Your task to perform on an android device: find snoozed emails in the gmail app Image 0: 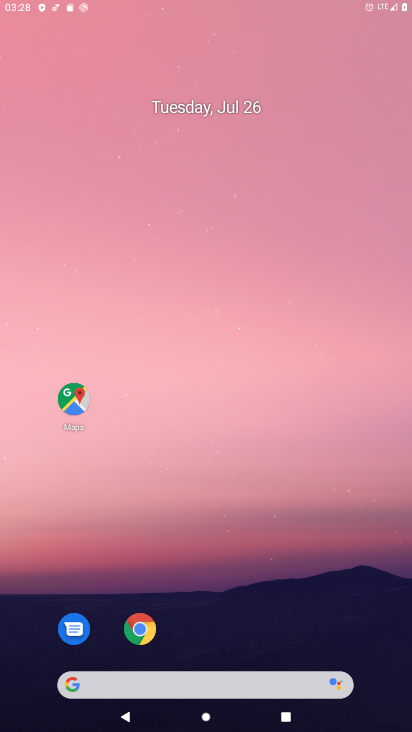
Step 0: drag from (268, 584) to (286, 74)
Your task to perform on an android device: find snoozed emails in the gmail app Image 1: 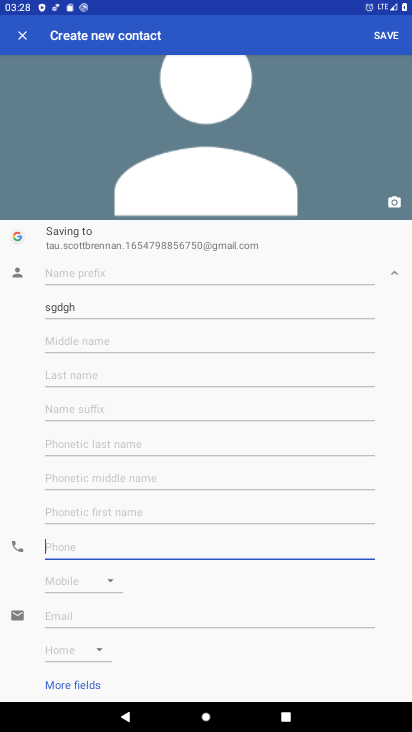
Step 1: press home button
Your task to perform on an android device: find snoozed emails in the gmail app Image 2: 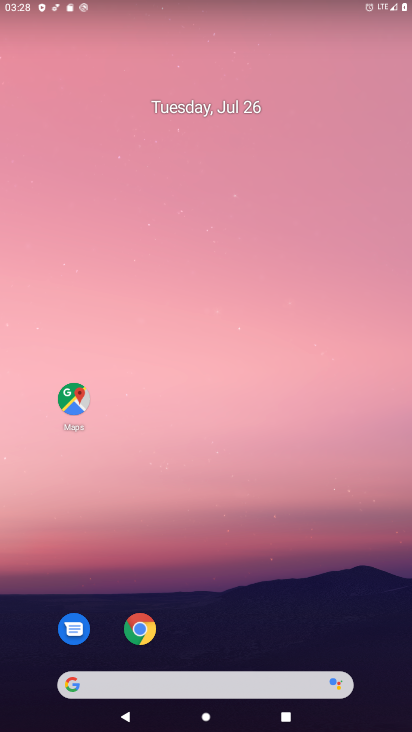
Step 2: drag from (248, 627) to (224, 137)
Your task to perform on an android device: find snoozed emails in the gmail app Image 3: 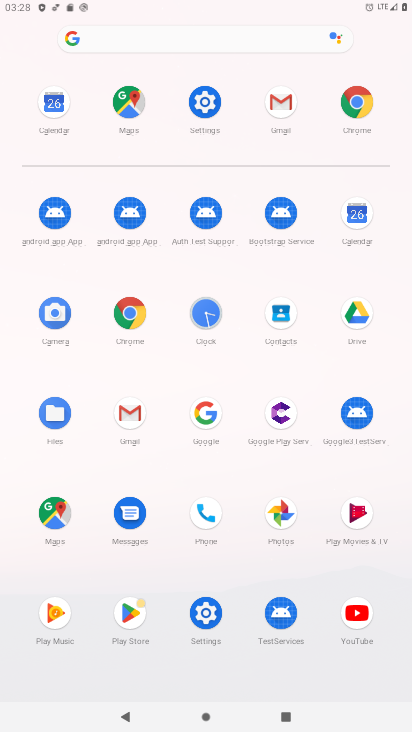
Step 3: click (124, 313)
Your task to perform on an android device: find snoozed emails in the gmail app Image 4: 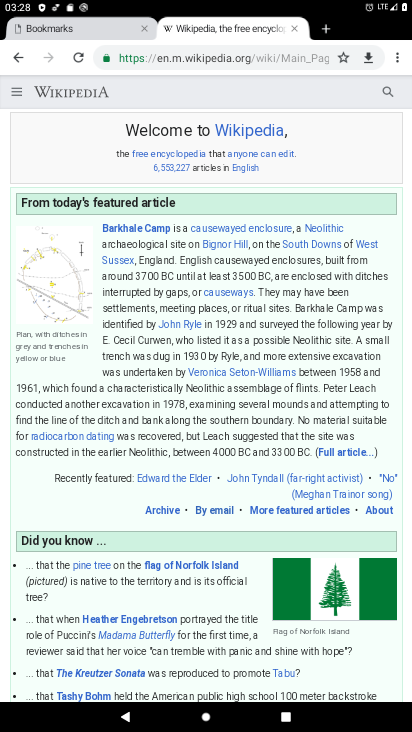
Step 4: press home button
Your task to perform on an android device: find snoozed emails in the gmail app Image 5: 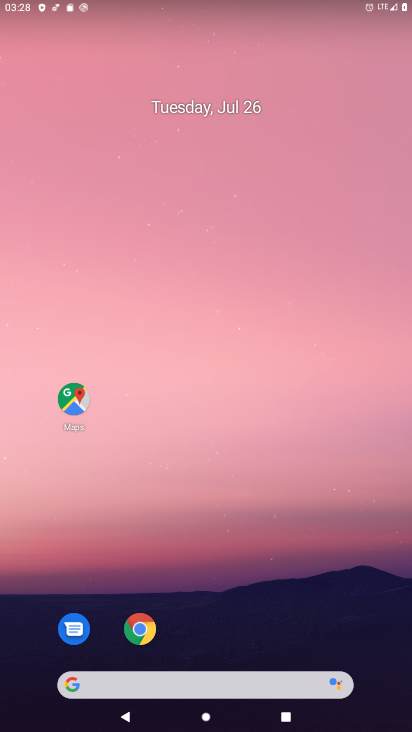
Step 5: drag from (284, 626) to (297, 231)
Your task to perform on an android device: find snoozed emails in the gmail app Image 6: 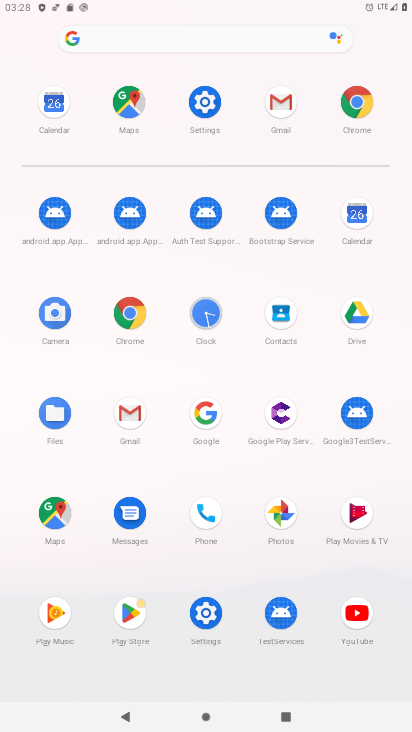
Step 6: click (129, 412)
Your task to perform on an android device: find snoozed emails in the gmail app Image 7: 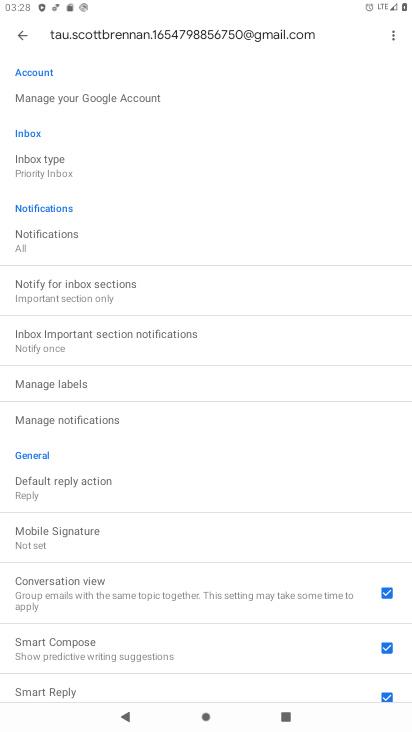
Step 7: click (23, 39)
Your task to perform on an android device: find snoozed emails in the gmail app Image 8: 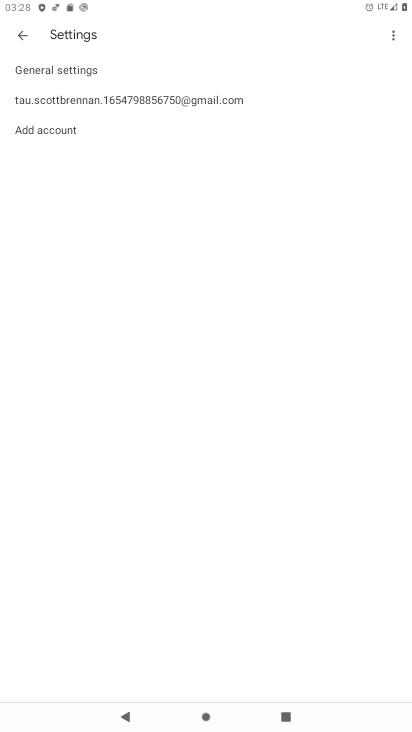
Step 8: click (18, 33)
Your task to perform on an android device: find snoozed emails in the gmail app Image 9: 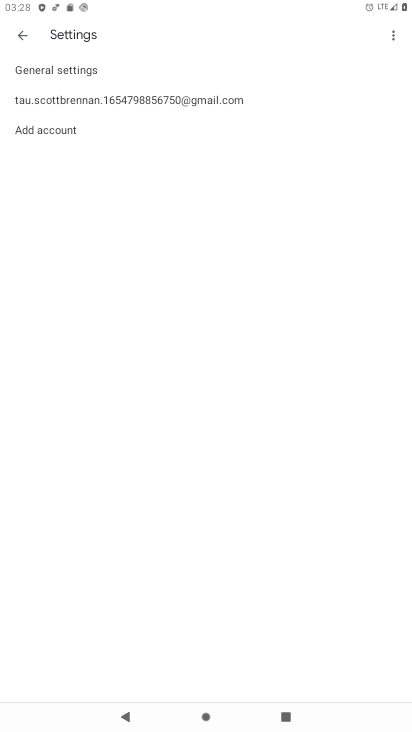
Step 9: click (18, 33)
Your task to perform on an android device: find snoozed emails in the gmail app Image 10: 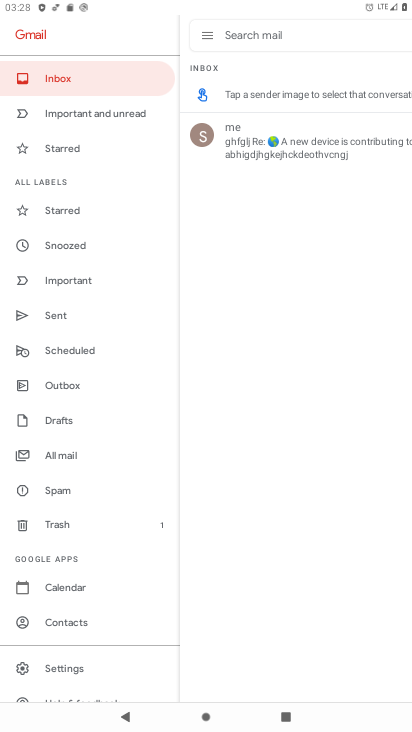
Step 10: click (66, 240)
Your task to perform on an android device: find snoozed emails in the gmail app Image 11: 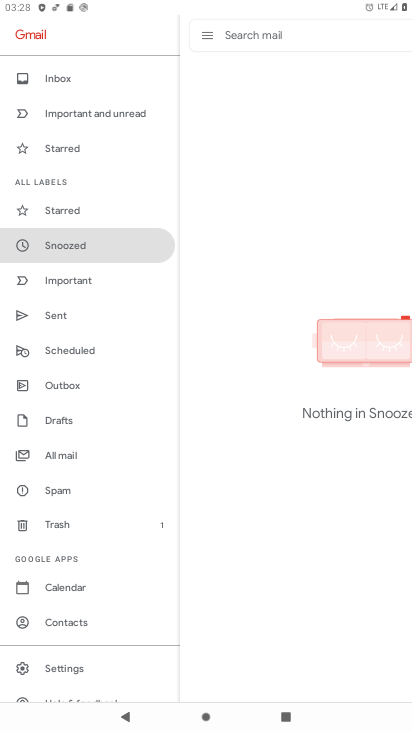
Step 11: task complete